Your task to perform on an android device: Open Maps and search for coffee Image 0: 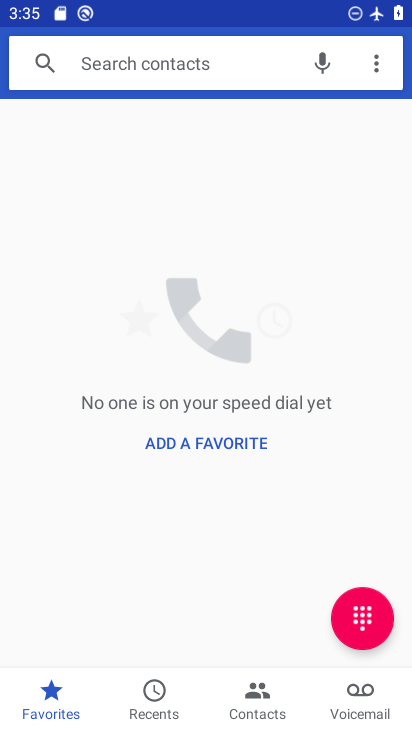
Step 0: press home button
Your task to perform on an android device: Open Maps and search for coffee Image 1: 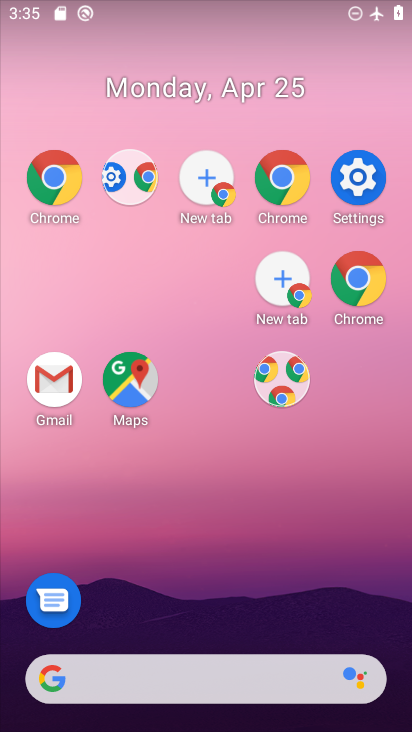
Step 1: drag from (296, 709) to (108, 108)
Your task to perform on an android device: Open Maps and search for coffee Image 2: 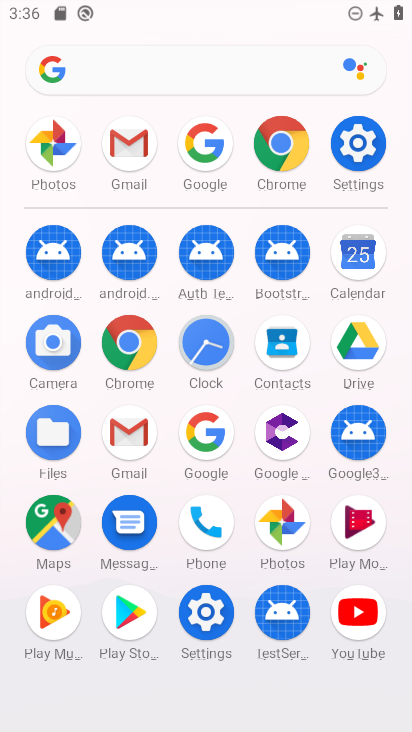
Step 2: click (55, 520)
Your task to perform on an android device: Open Maps and search for coffee Image 3: 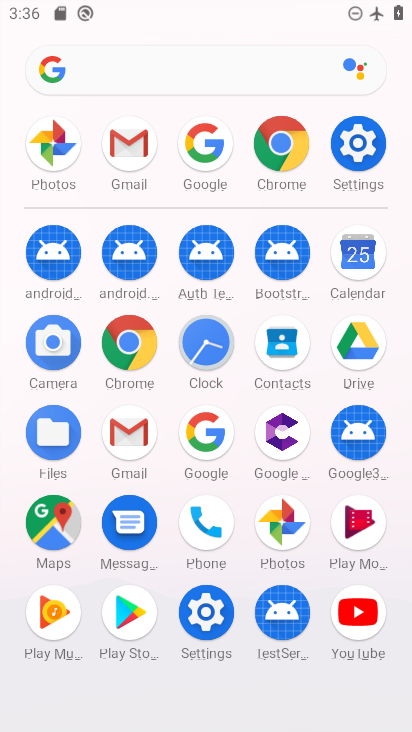
Step 3: click (54, 521)
Your task to perform on an android device: Open Maps and search for coffee Image 4: 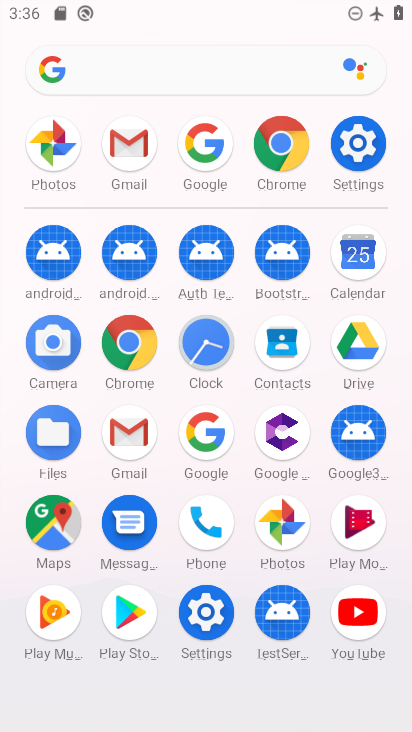
Step 4: click (42, 512)
Your task to perform on an android device: Open Maps and search for coffee Image 5: 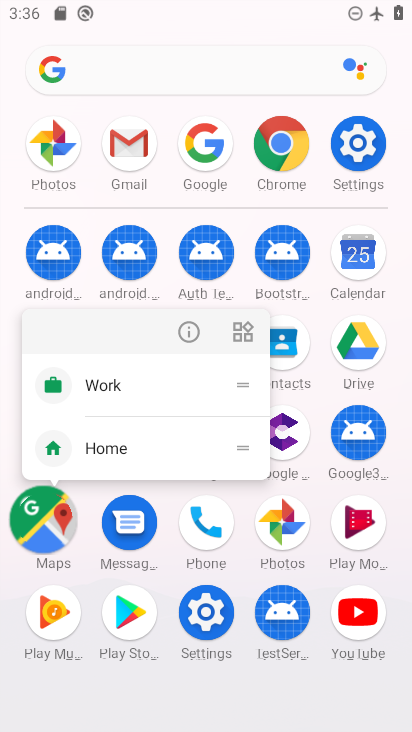
Step 5: drag from (27, 517) to (66, 540)
Your task to perform on an android device: Open Maps and search for coffee Image 6: 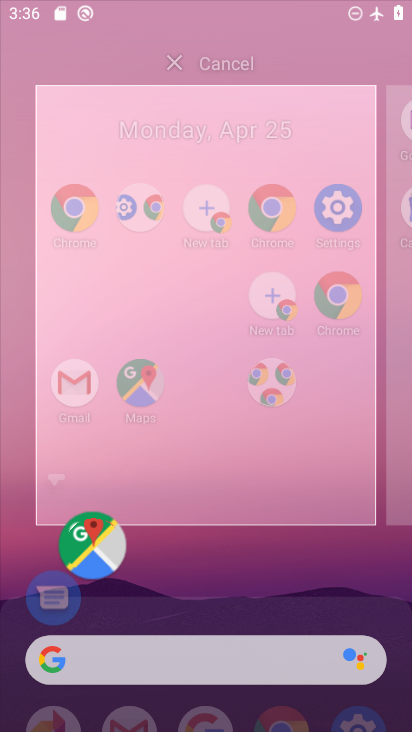
Step 6: click (42, 524)
Your task to perform on an android device: Open Maps and search for coffee Image 7: 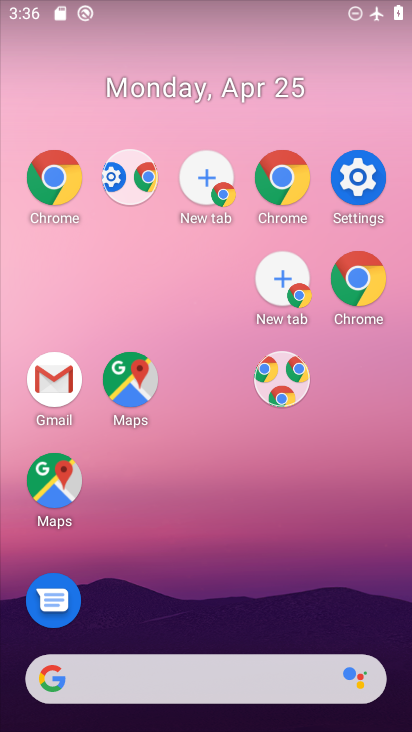
Step 7: drag from (194, 662) to (151, 132)
Your task to perform on an android device: Open Maps and search for coffee Image 8: 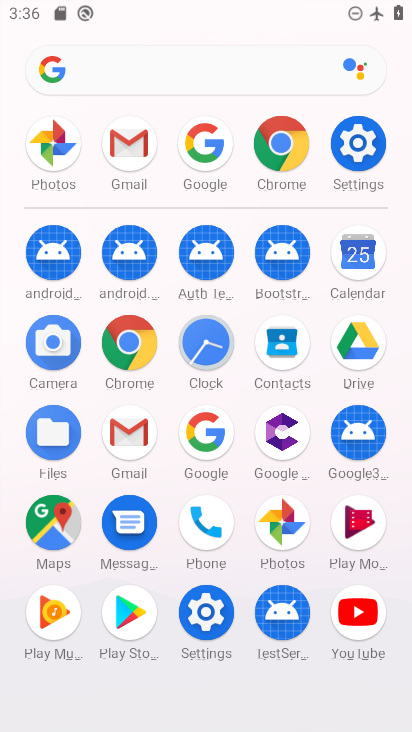
Step 8: click (42, 517)
Your task to perform on an android device: Open Maps and search for coffee Image 9: 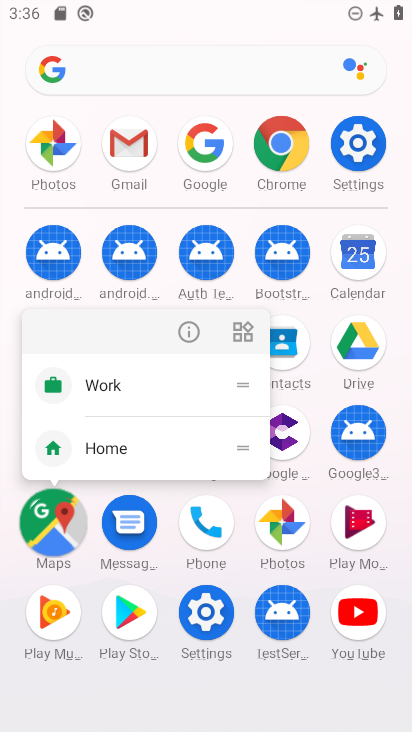
Step 9: click (45, 517)
Your task to perform on an android device: Open Maps and search for coffee Image 10: 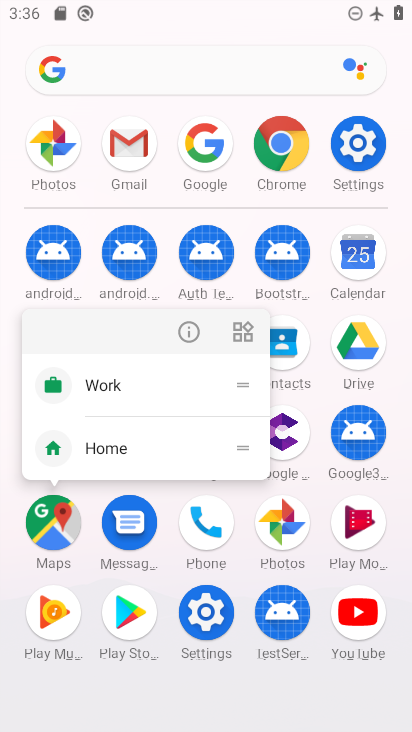
Step 10: click (56, 507)
Your task to perform on an android device: Open Maps and search for coffee Image 11: 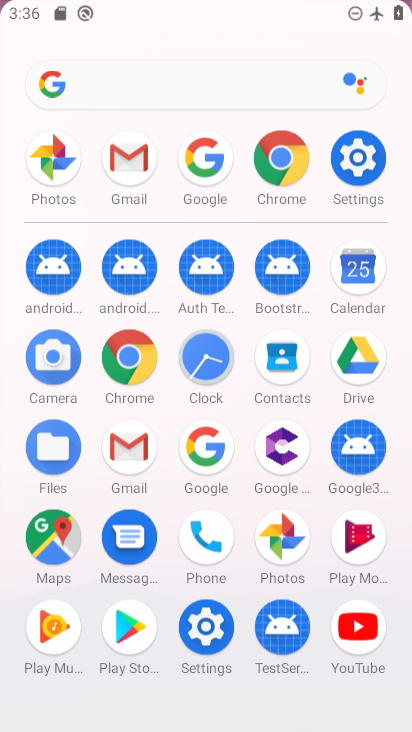
Step 11: click (58, 512)
Your task to perform on an android device: Open Maps and search for coffee Image 12: 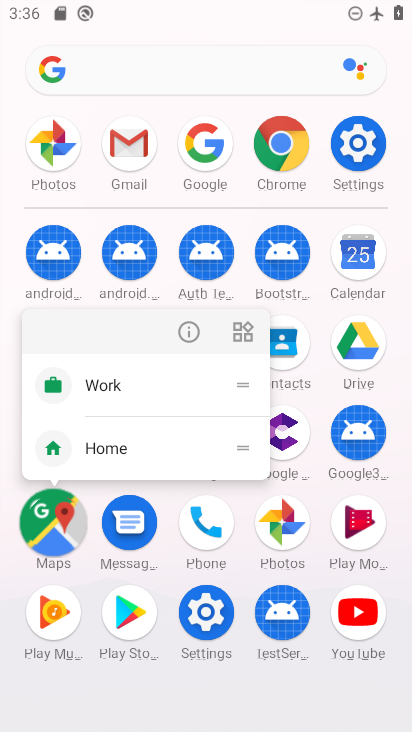
Step 12: click (53, 524)
Your task to perform on an android device: Open Maps and search for coffee Image 13: 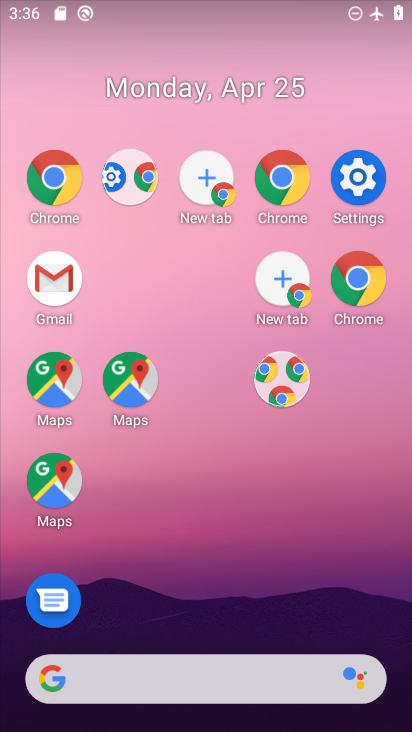
Step 13: click (62, 459)
Your task to perform on an android device: Open Maps and search for coffee Image 14: 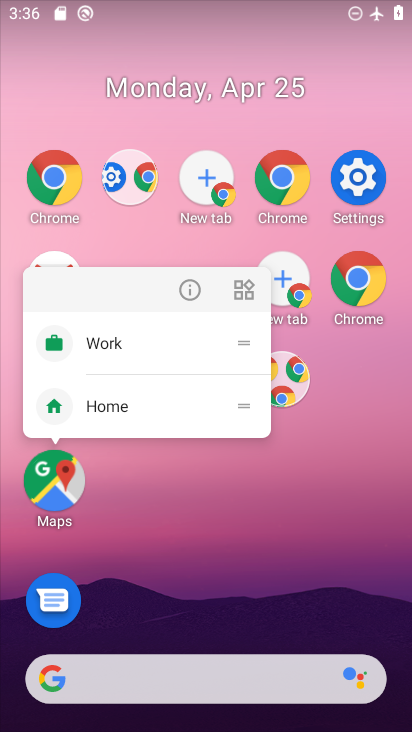
Step 14: click (63, 458)
Your task to perform on an android device: Open Maps and search for coffee Image 15: 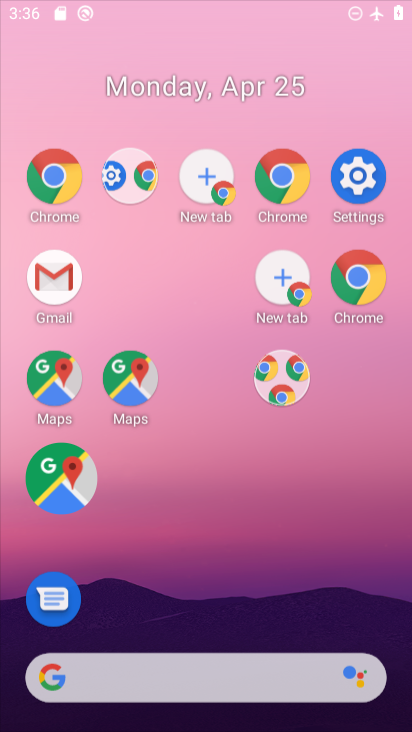
Step 15: click (45, 460)
Your task to perform on an android device: Open Maps and search for coffee Image 16: 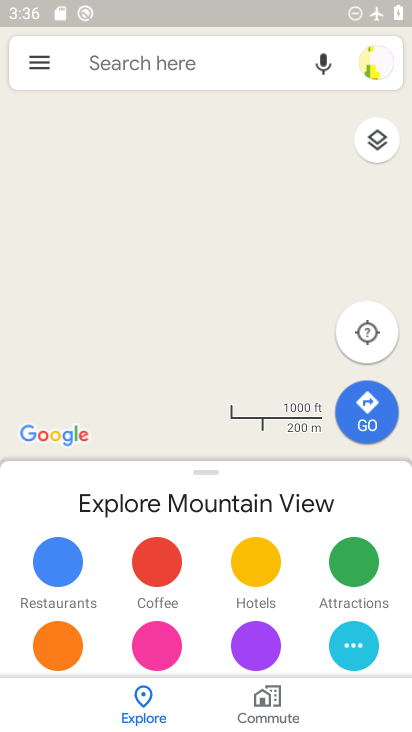
Step 16: click (104, 55)
Your task to perform on an android device: Open Maps and search for coffee Image 17: 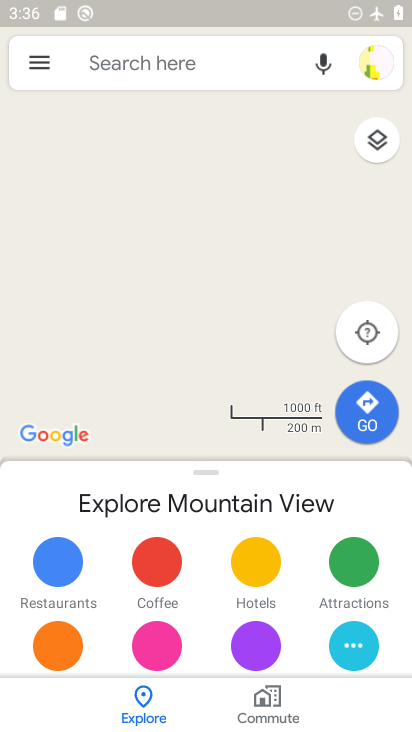
Step 17: click (107, 52)
Your task to perform on an android device: Open Maps and search for coffee Image 18: 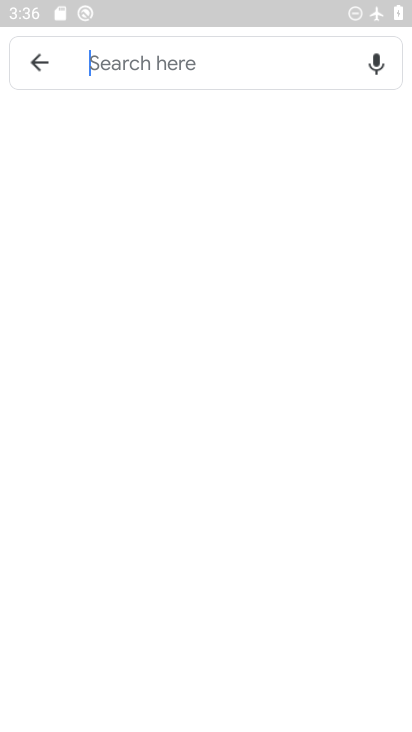
Step 18: click (107, 52)
Your task to perform on an android device: Open Maps and search for coffee Image 19: 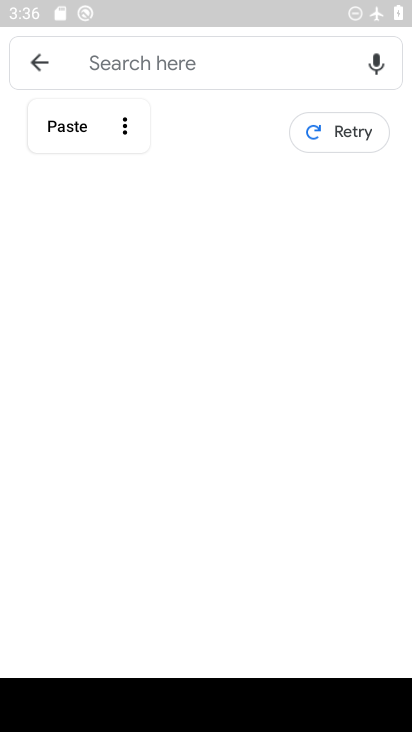
Step 19: click (89, 60)
Your task to perform on an android device: Open Maps and search for coffee Image 20: 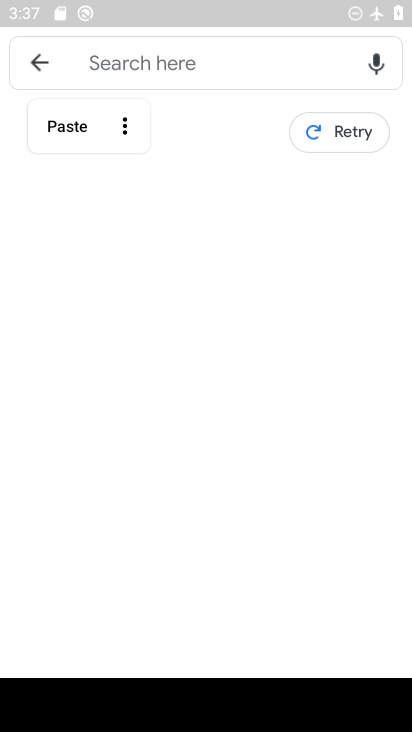
Step 20: type "coffee"
Your task to perform on an android device: Open Maps and search for coffee Image 21: 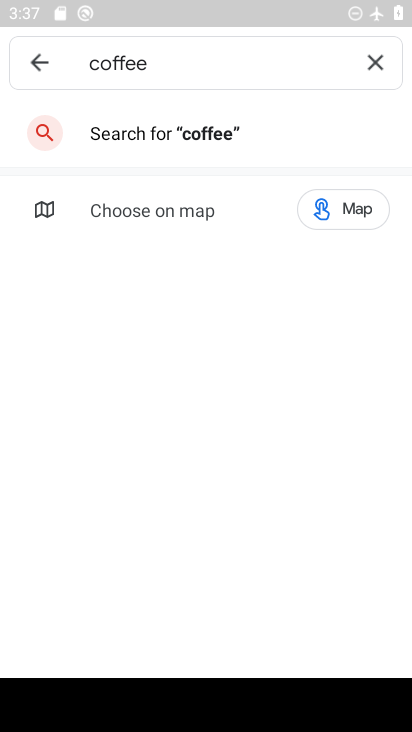
Step 21: click (222, 135)
Your task to perform on an android device: Open Maps and search for coffee Image 22: 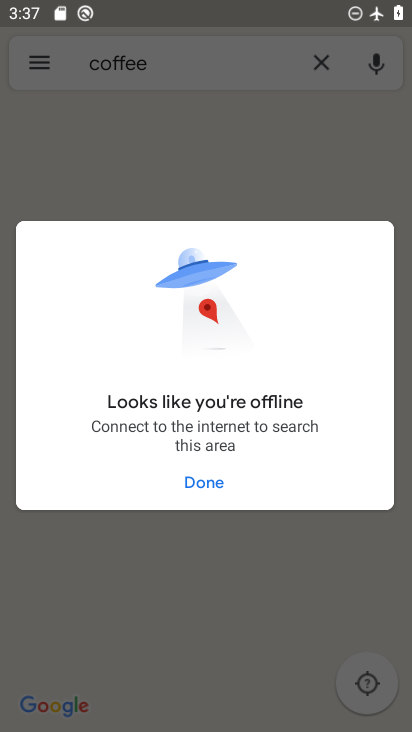
Step 22: task complete